Your task to perform on an android device: Go to internet settings Image 0: 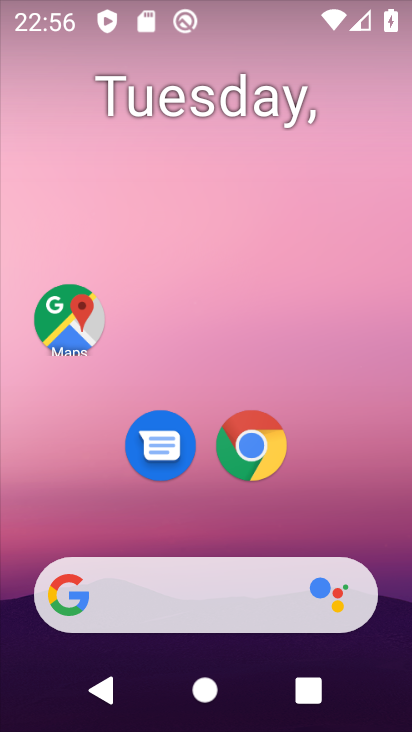
Step 0: drag from (230, 529) to (301, 50)
Your task to perform on an android device: Go to internet settings Image 1: 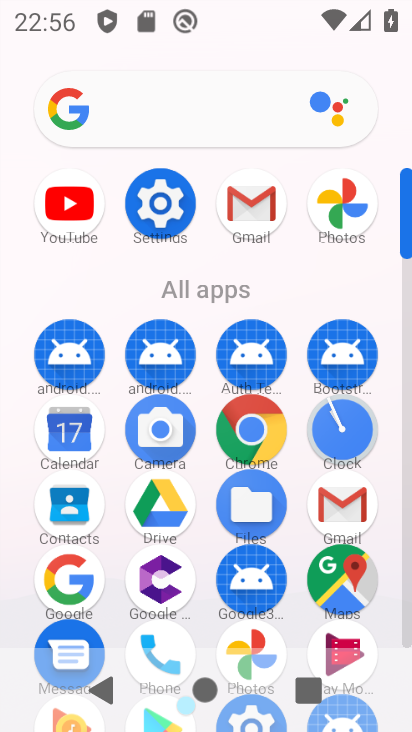
Step 1: click (160, 199)
Your task to perform on an android device: Go to internet settings Image 2: 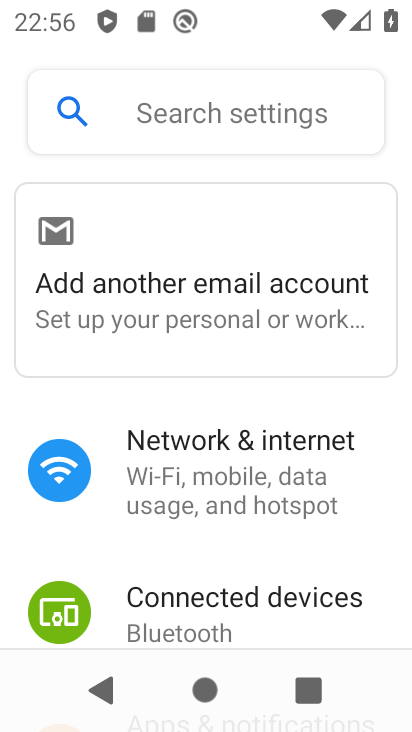
Step 2: click (206, 481)
Your task to perform on an android device: Go to internet settings Image 3: 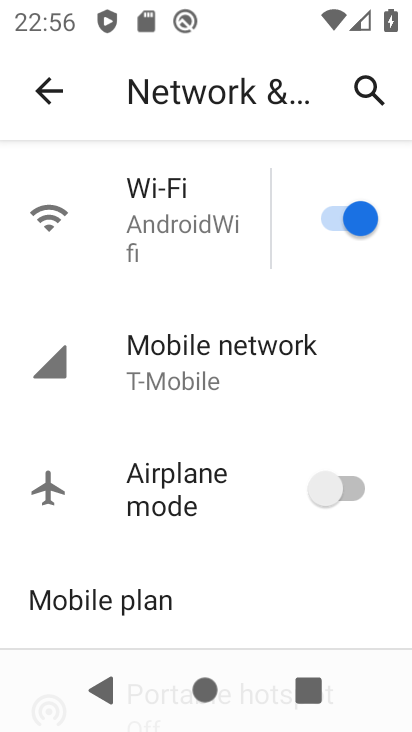
Step 3: click (156, 371)
Your task to perform on an android device: Go to internet settings Image 4: 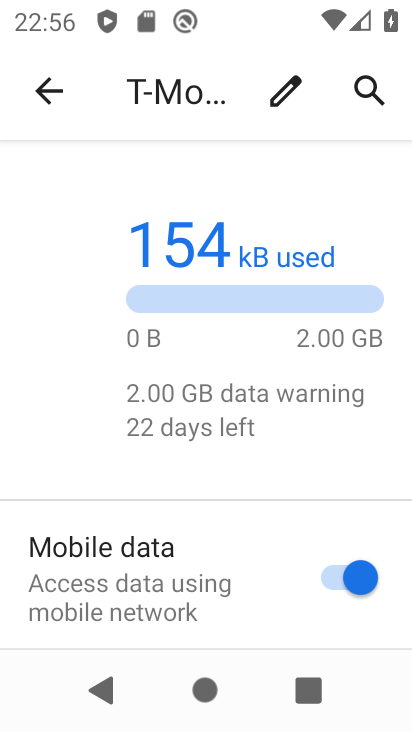
Step 4: task complete